Your task to perform on an android device: stop showing notifications on the lock screen Image 0: 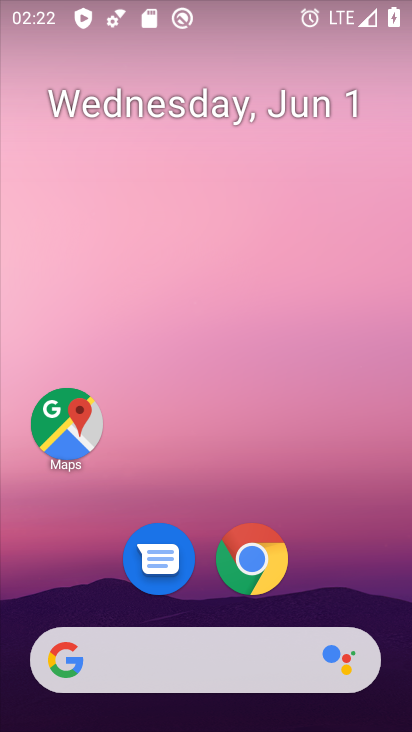
Step 0: press home button
Your task to perform on an android device: stop showing notifications on the lock screen Image 1: 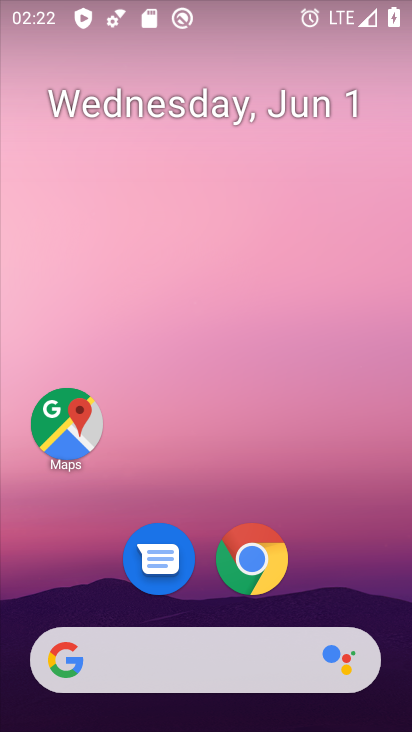
Step 1: drag from (311, 611) to (322, 53)
Your task to perform on an android device: stop showing notifications on the lock screen Image 2: 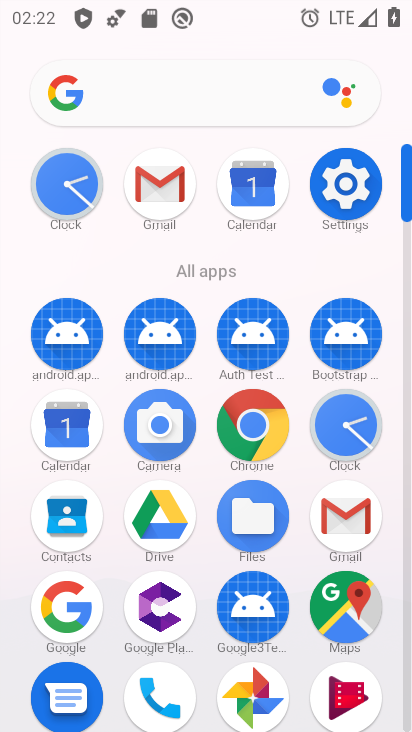
Step 2: click (348, 185)
Your task to perform on an android device: stop showing notifications on the lock screen Image 3: 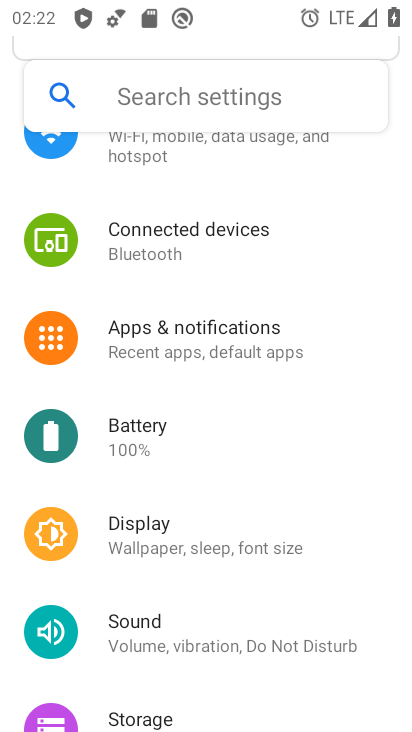
Step 3: click (183, 342)
Your task to perform on an android device: stop showing notifications on the lock screen Image 4: 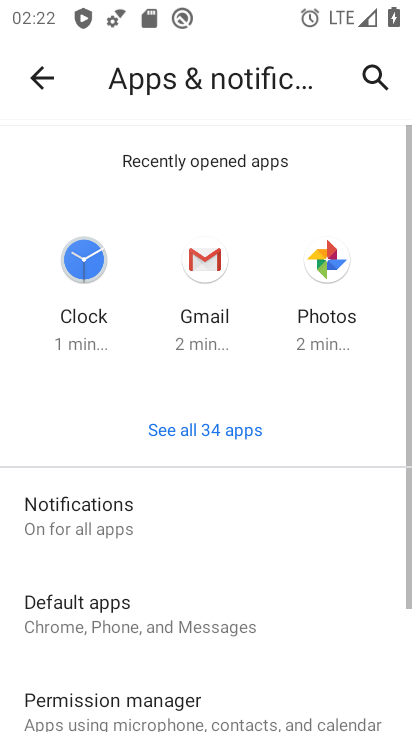
Step 4: click (82, 517)
Your task to perform on an android device: stop showing notifications on the lock screen Image 5: 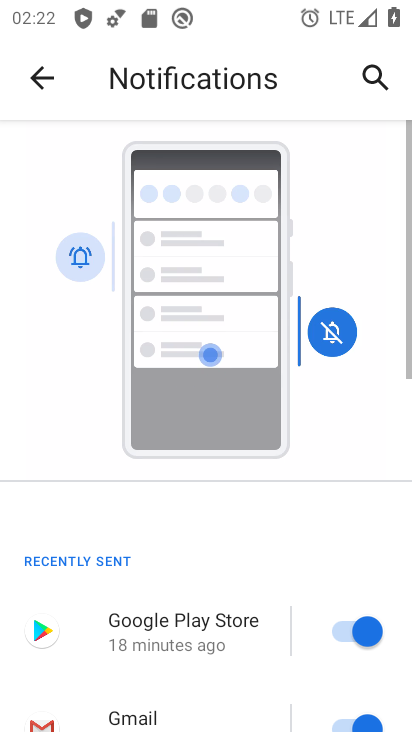
Step 5: drag from (229, 568) to (253, 113)
Your task to perform on an android device: stop showing notifications on the lock screen Image 6: 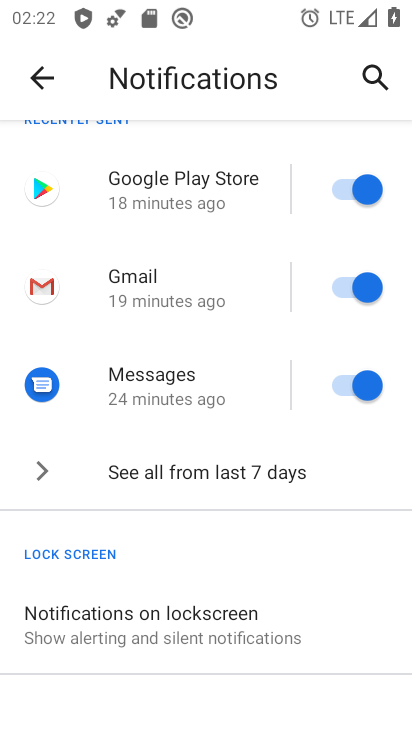
Step 6: click (128, 630)
Your task to perform on an android device: stop showing notifications on the lock screen Image 7: 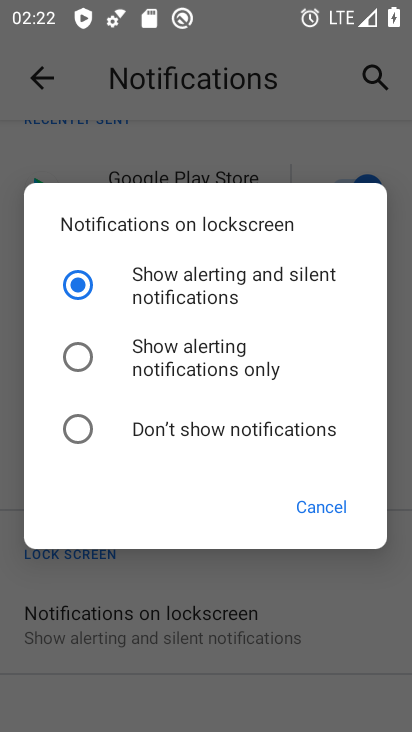
Step 7: click (85, 420)
Your task to perform on an android device: stop showing notifications on the lock screen Image 8: 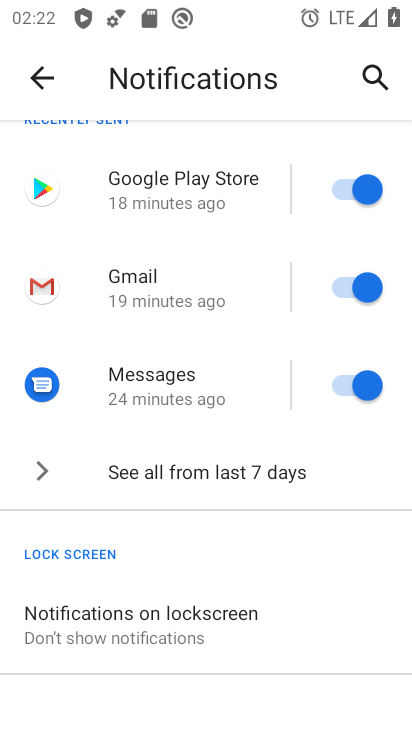
Step 8: task complete